Your task to perform on an android device: turn off javascript in the chrome app Image 0: 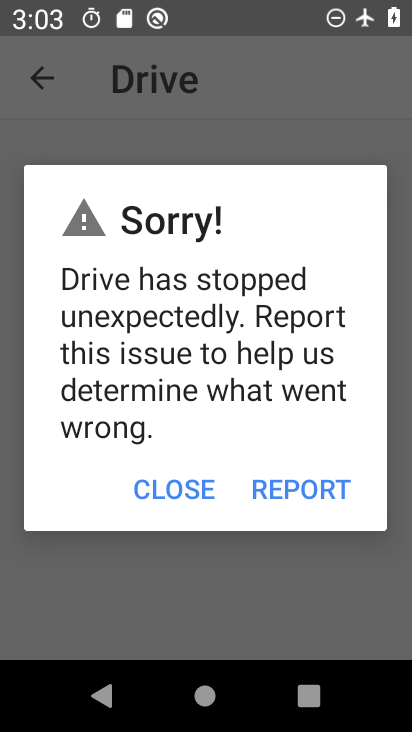
Step 0: press home button
Your task to perform on an android device: turn off javascript in the chrome app Image 1: 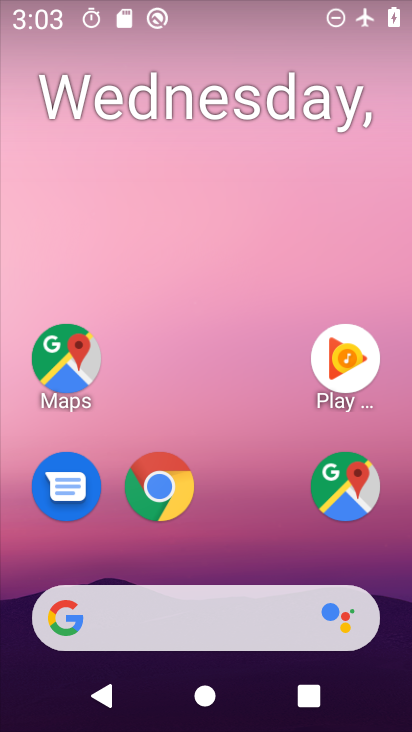
Step 1: drag from (240, 567) to (277, 161)
Your task to perform on an android device: turn off javascript in the chrome app Image 2: 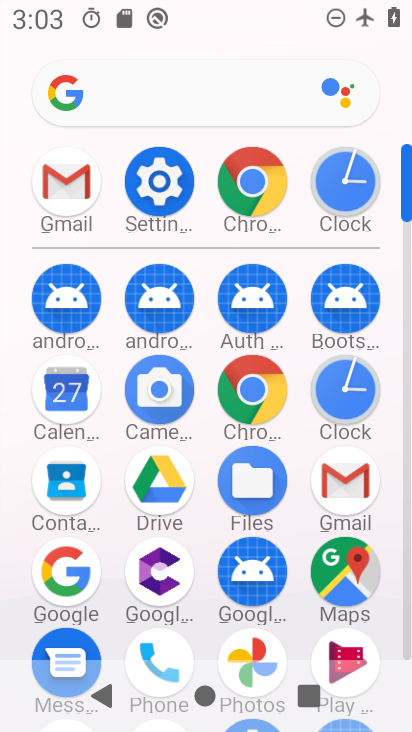
Step 2: click (252, 390)
Your task to perform on an android device: turn off javascript in the chrome app Image 3: 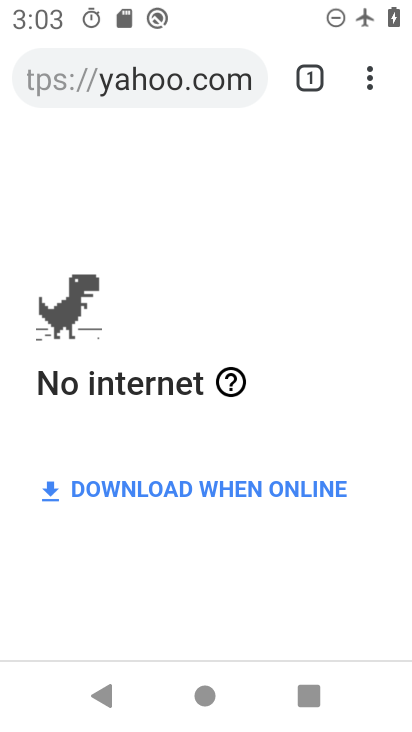
Step 3: click (368, 87)
Your task to perform on an android device: turn off javascript in the chrome app Image 4: 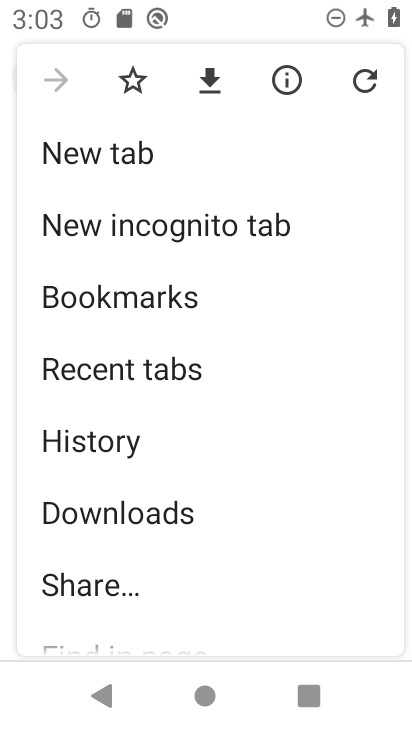
Step 4: drag from (313, 412) to (327, 316)
Your task to perform on an android device: turn off javascript in the chrome app Image 5: 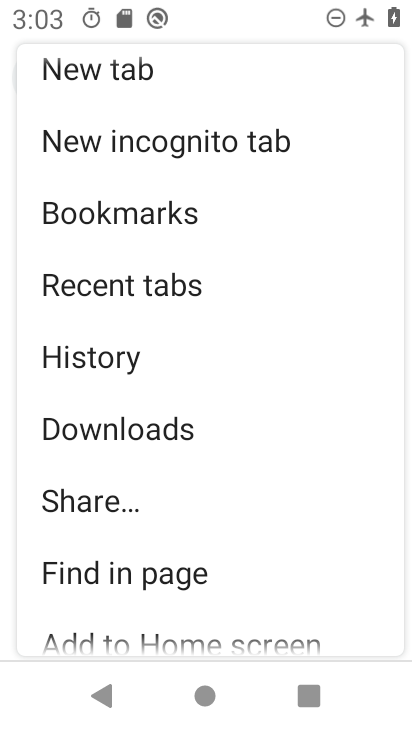
Step 5: drag from (302, 496) to (311, 360)
Your task to perform on an android device: turn off javascript in the chrome app Image 6: 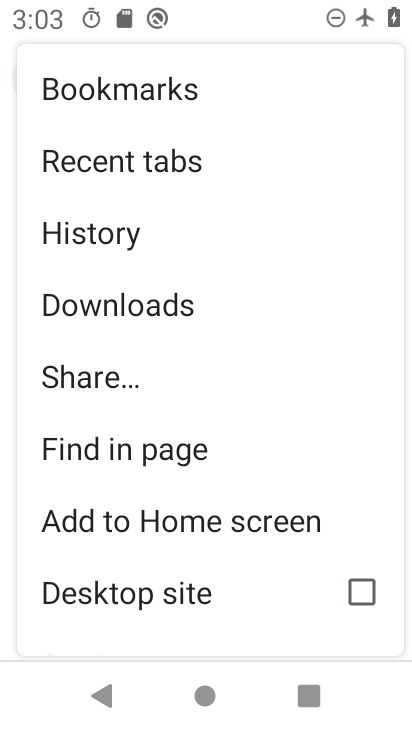
Step 6: drag from (277, 557) to (283, 430)
Your task to perform on an android device: turn off javascript in the chrome app Image 7: 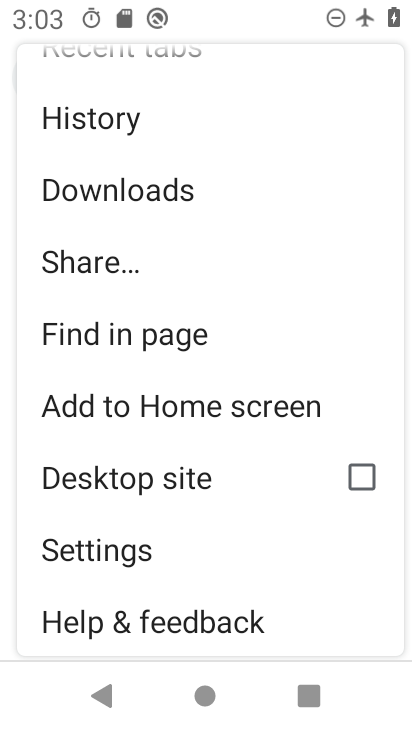
Step 7: drag from (287, 561) to (292, 417)
Your task to perform on an android device: turn off javascript in the chrome app Image 8: 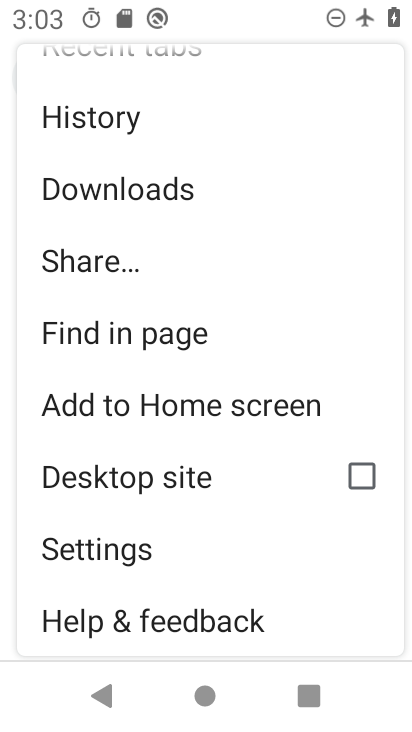
Step 8: click (189, 553)
Your task to perform on an android device: turn off javascript in the chrome app Image 9: 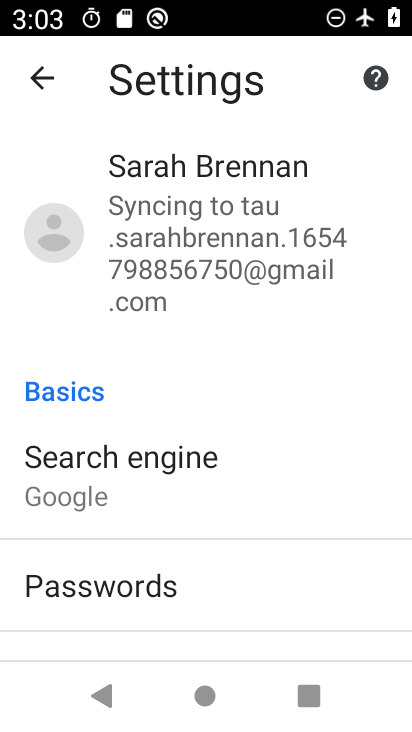
Step 9: drag from (301, 580) to (322, 480)
Your task to perform on an android device: turn off javascript in the chrome app Image 10: 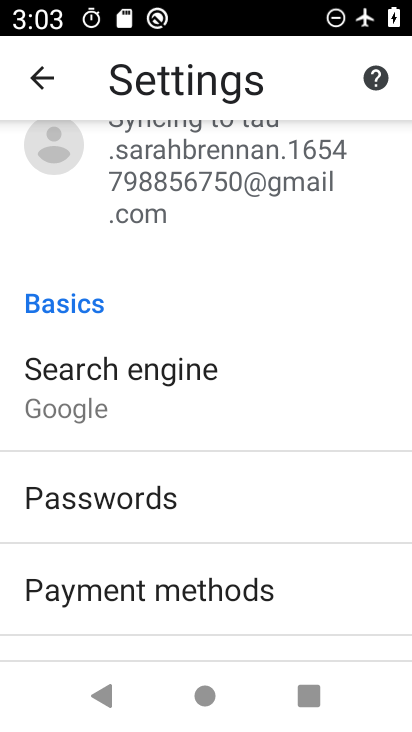
Step 10: drag from (343, 529) to (335, 419)
Your task to perform on an android device: turn off javascript in the chrome app Image 11: 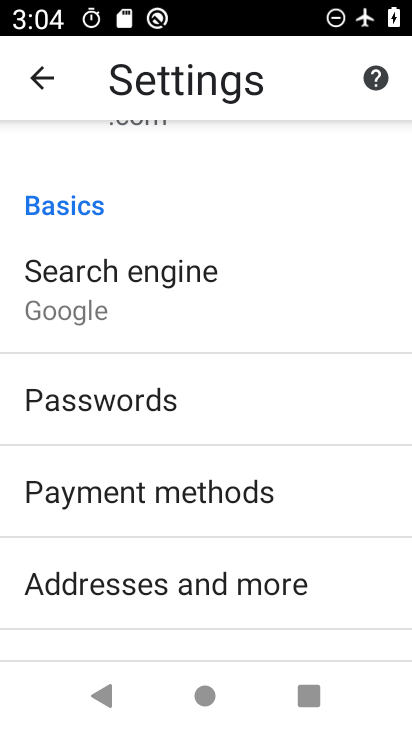
Step 11: drag from (355, 576) to (347, 450)
Your task to perform on an android device: turn off javascript in the chrome app Image 12: 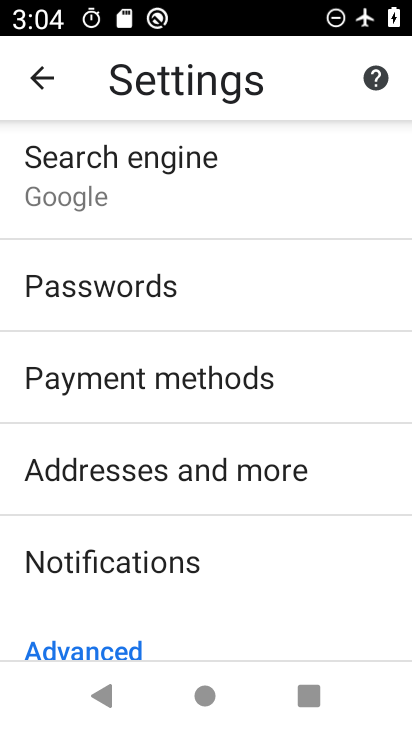
Step 12: drag from (342, 520) to (336, 408)
Your task to perform on an android device: turn off javascript in the chrome app Image 13: 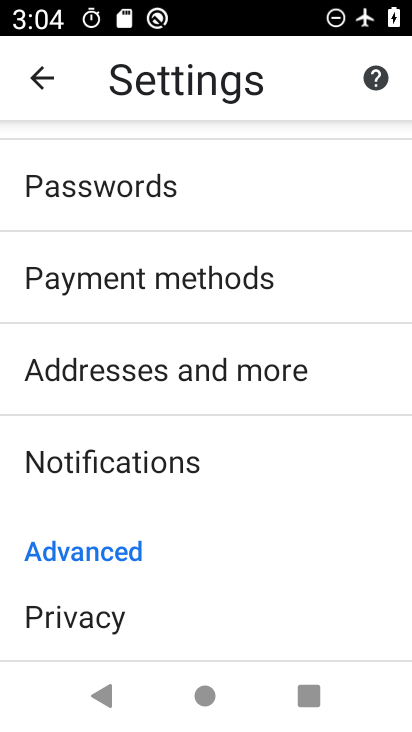
Step 13: drag from (332, 520) to (333, 406)
Your task to perform on an android device: turn off javascript in the chrome app Image 14: 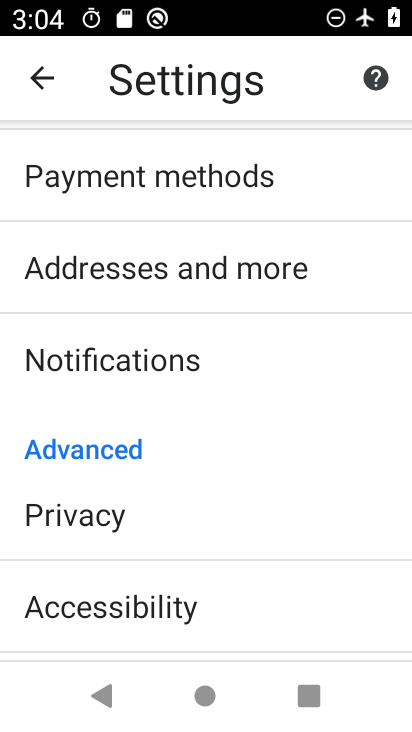
Step 14: drag from (310, 559) to (309, 433)
Your task to perform on an android device: turn off javascript in the chrome app Image 15: 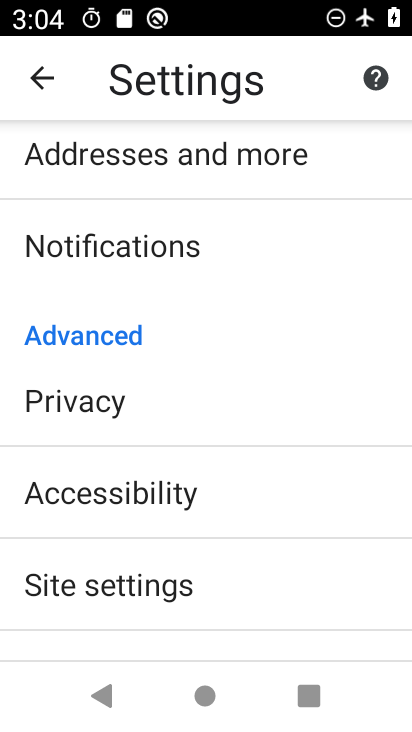
Step 15: drag from (305, 587) to (305, 467)
Your task to perform on an android device: turn off javascript in the chrome app Image 16: 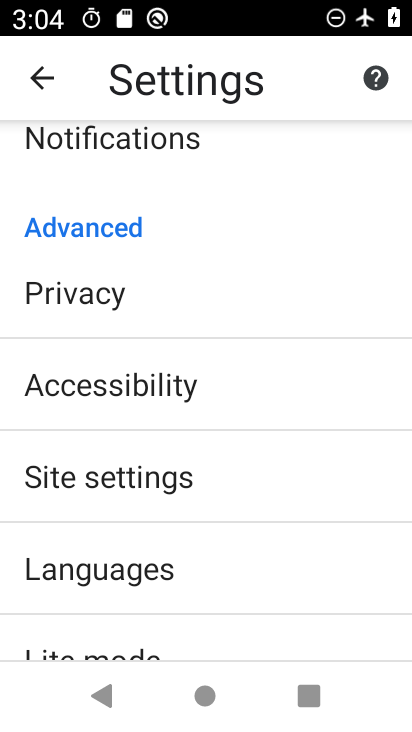
Step 16: drag from (296, 572) to (295, 441)
Your task to perform on an android device: turn off javascript in the chrome app Image 17: 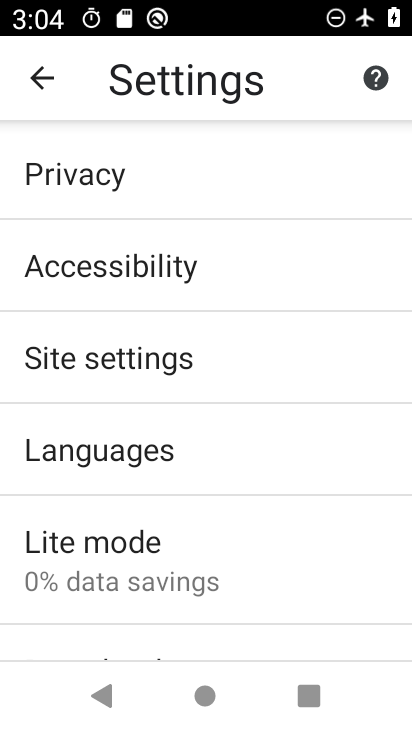
Step 17: click (278, 380)
Your task to perform on an android device: turn off javascript in the chrome app Image 18: 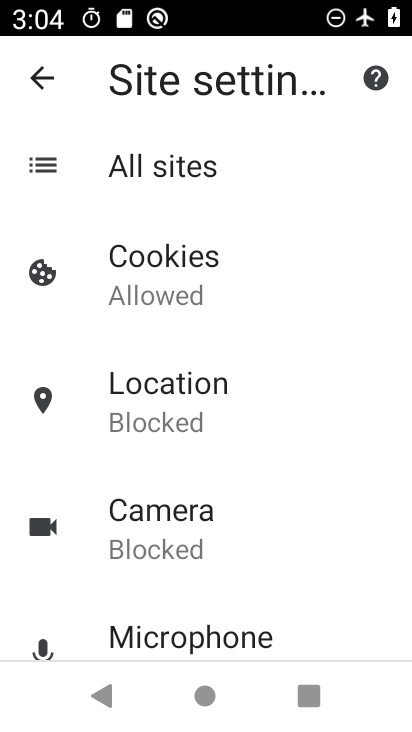
Step 18: drag from (294, 465) to (298, 359)
Your task to perform on an android device: turn off javascript in the chrome app Image 19: 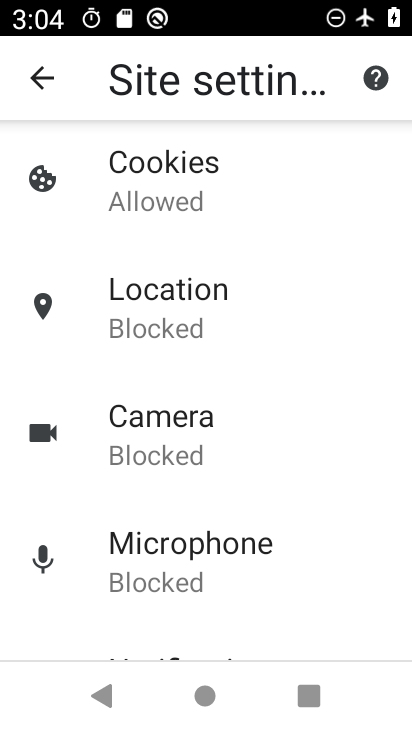
Step 19: drag from (311, 506) to (318, 411)
Your task to perform on an android device: turn off javascript in the chrome app Image 20: 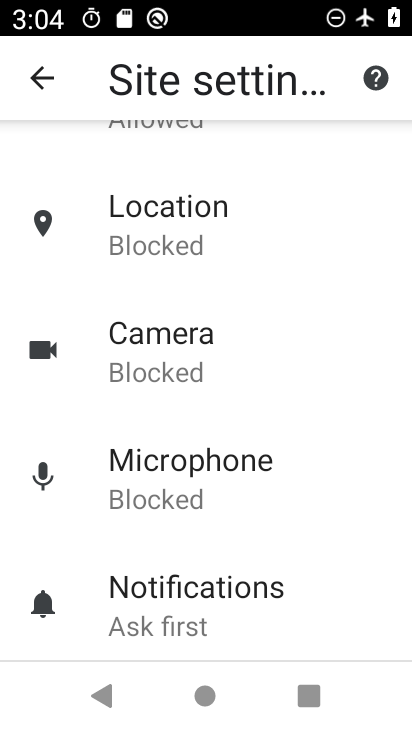
Step 20: drag from (330, 533) to (338, 436)
Your task to perform on an android device: turn off javascript in the chrome app Image 21: 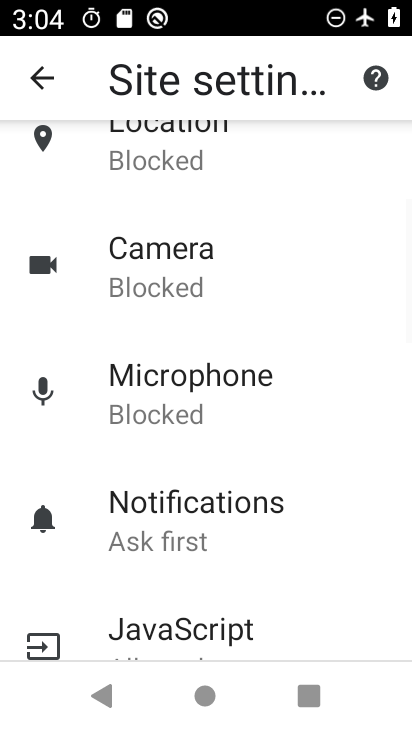
Step 21: drag from (345, 570) to (355, 411)
Your task to perform on an android device: turn off javascript in the chrome app Image 22: 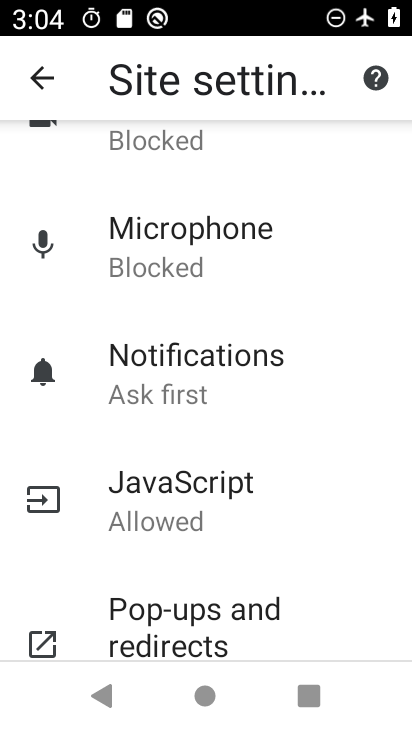
Step 22: drag from (349, 499) to (351, 397)
Your task to perform on an android device: turn off javascript in the chrome app Image 23: 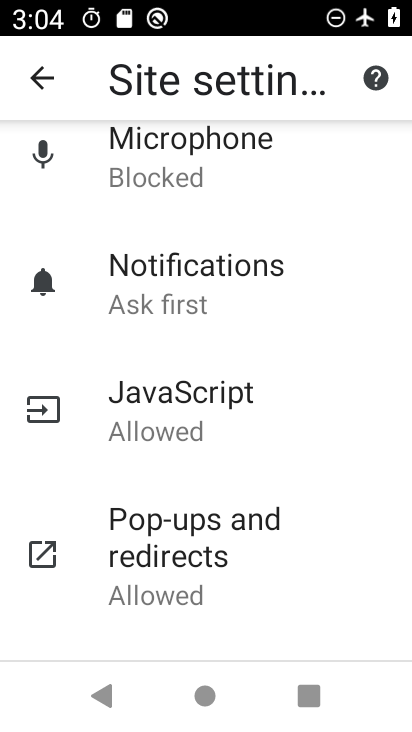
Step 23: click (300, 405)
Your task to perform on an android device: turn off javascript in the chrome app Image 24: 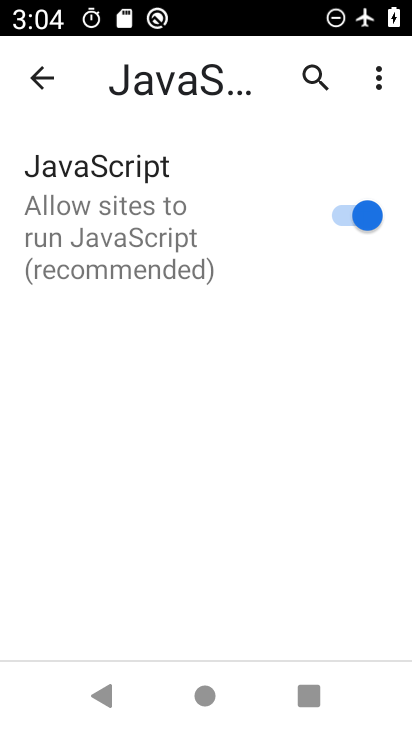
Step 24: click (360, 222)
Your task to perform on an android device: turn off javascript in the chrome app Image 25: 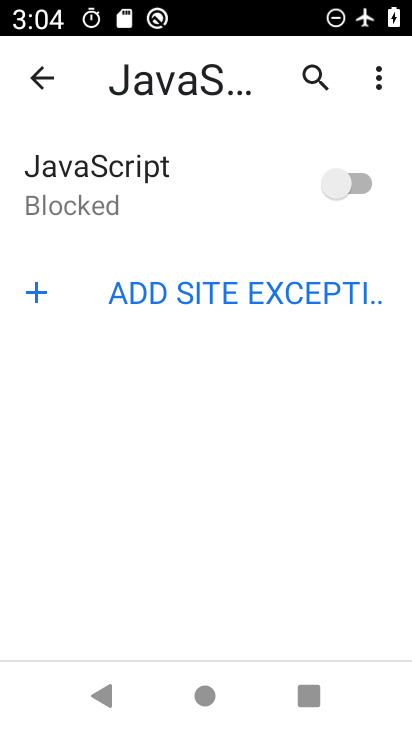
Step 25: task complete